Your task to perform on an android device: read, delete, or share a saved page in the chrome app Image 0: 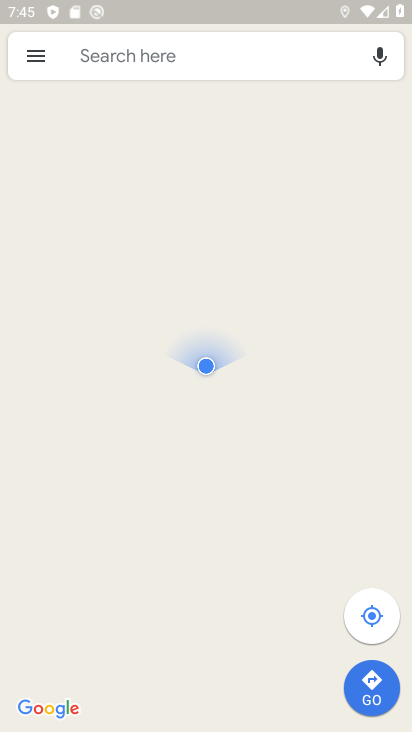
Step 0: press back button
Your task to perform on an android device: read, delete, or share a saved page in the chrome app Image 1: 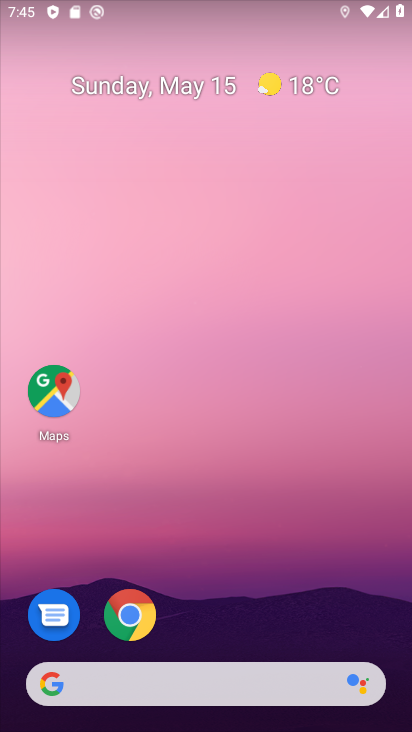
Step 1: press back button
Your task to perform on an android device: read, delete, or share a saved page in the chrome app Image 2: 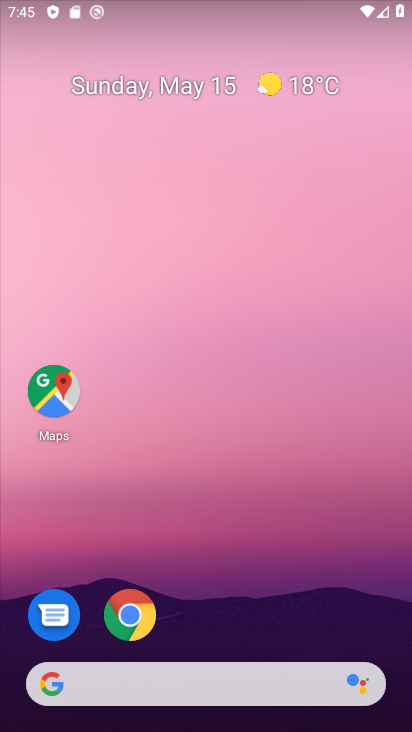
Step 2: drag from (28, 568) to (199, 212)
Your task to perform on an android device: read, delete, or share a saved page in the chrome app Image 3: 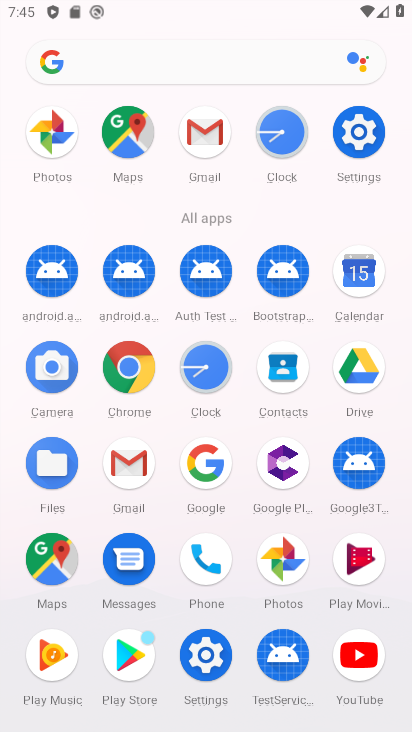
Step 3: click (138, 369)
Your task to perform on an android device: read, delete, or share a saved page in the chrome app Image 4: 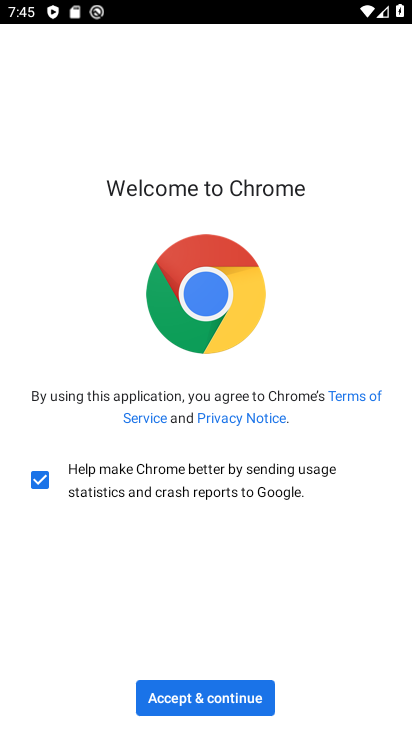
Step 4: click (152, 703)
Your task to perform on an android device: read, delete, or share a saved page in the chrome app Image 5: 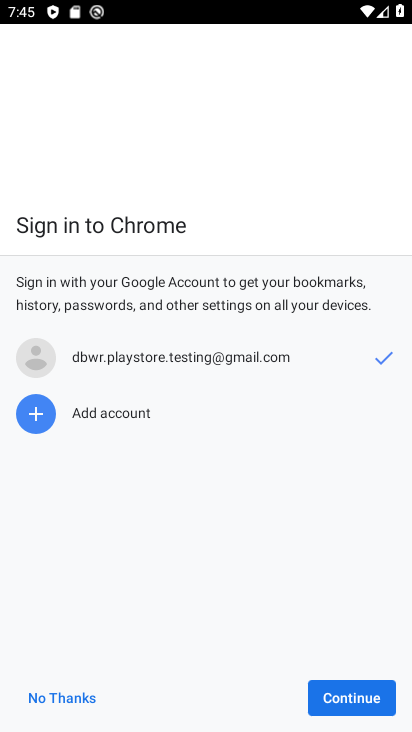
Step 5: click (57, 701)
Your task to perform on an android device: read, delete, or share a saved page in the chrome app Image 6: 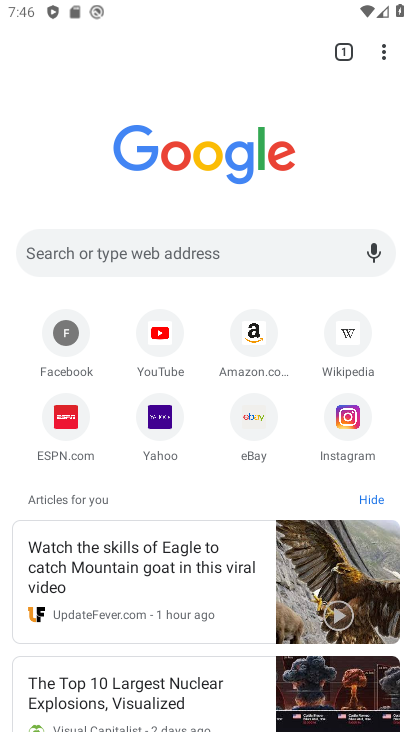
Step 6: click (359, 423)
Your task to perform on an android device: read, delete, or share a saved page in the chrome app Image 7: 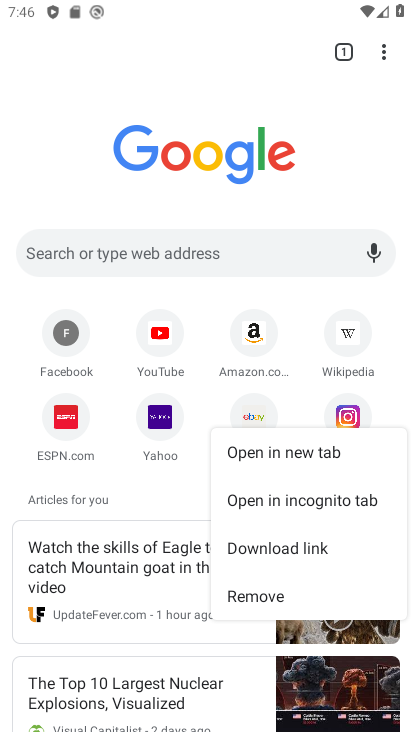
Step 7: click (255, 599)
Your task to perform on an android device: read, delete, or share a saved page in the chrome app Image 8: 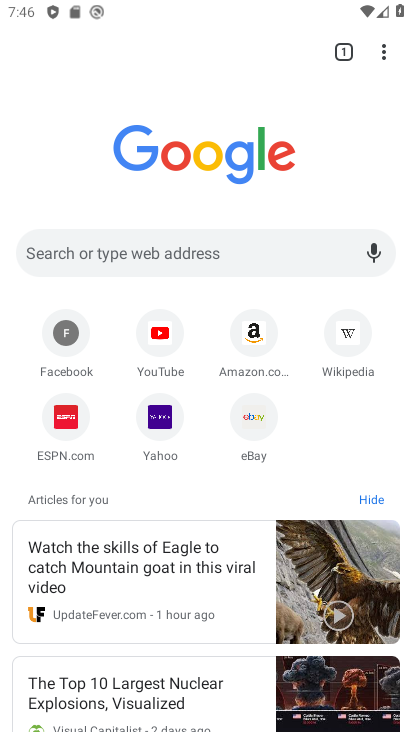
Step 8: task complete